Your task to perform on an android device: turn off location history Image 0: 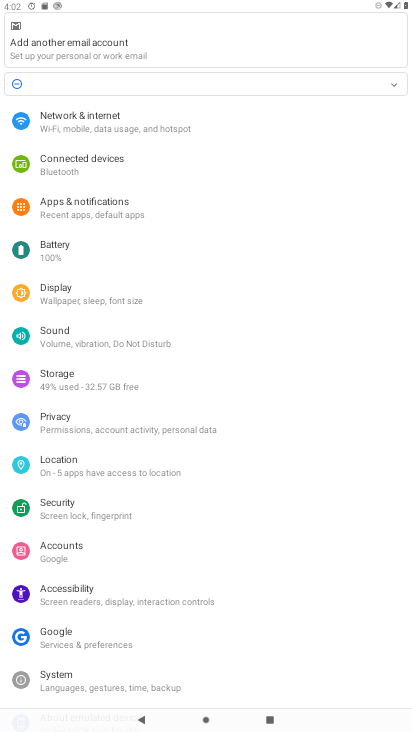
Step 0: press home button
Your task to perform on an android device: turn off location history Image 1: 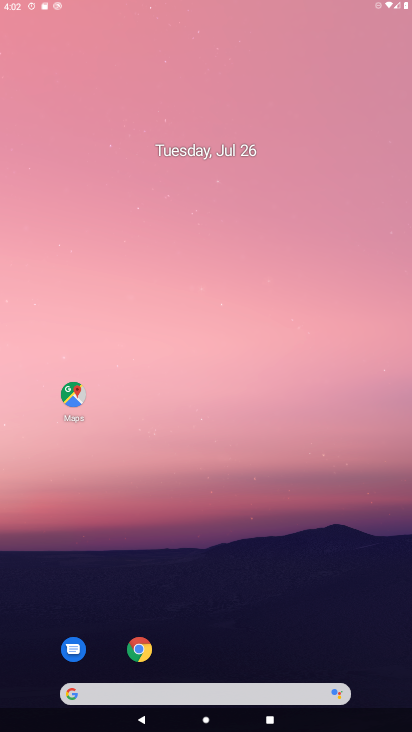
Step 1: drag from (377, 634) to (226, 11)
Your task to perform on an android device: turn off location history Image 2: 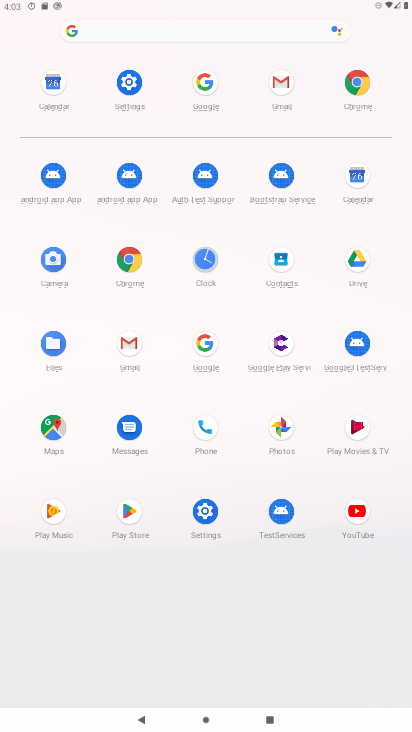
Step 2: click (210, 516)
Your task to perform on an android device: turn off location history Image 3: 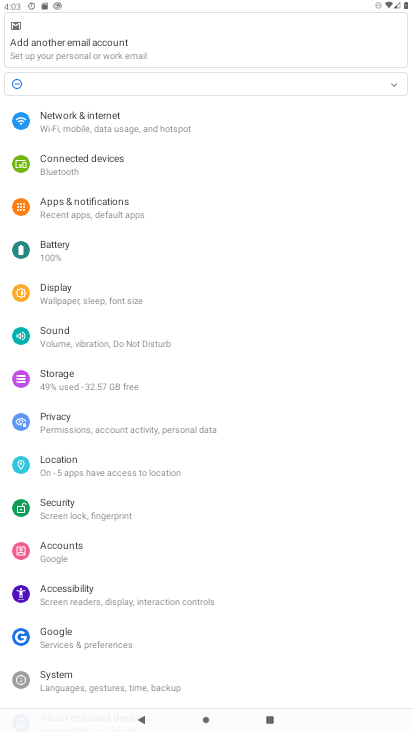
Step 3: click (98, 482)
Your task to perform on an android device: turn off location history Image 4: 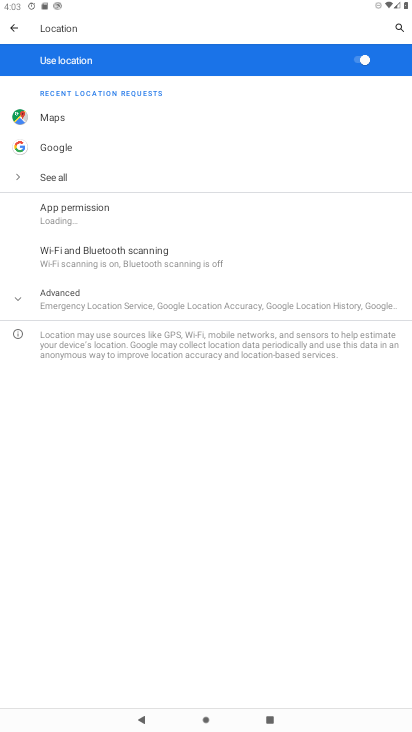
Step 4: click (110, 305)
Your task to perform on an android device: turn off location history Image 5: 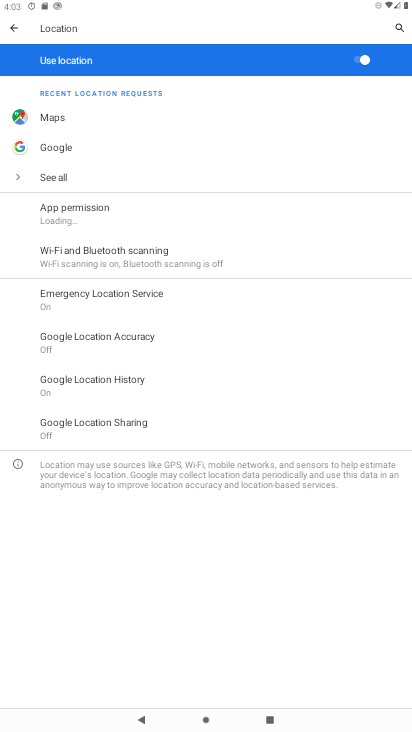
Step 5: click (112, 375)
Your task to perform on an android device: turn off location history Image 6: 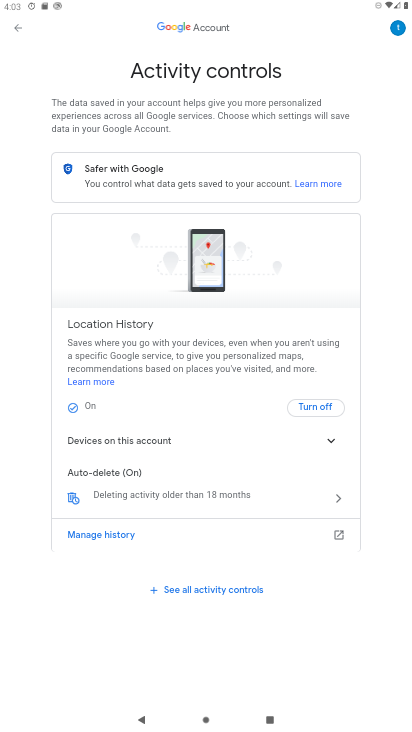
Step 6: task complete